Your task to perform on an android device: Open Wikipedia Image 0: 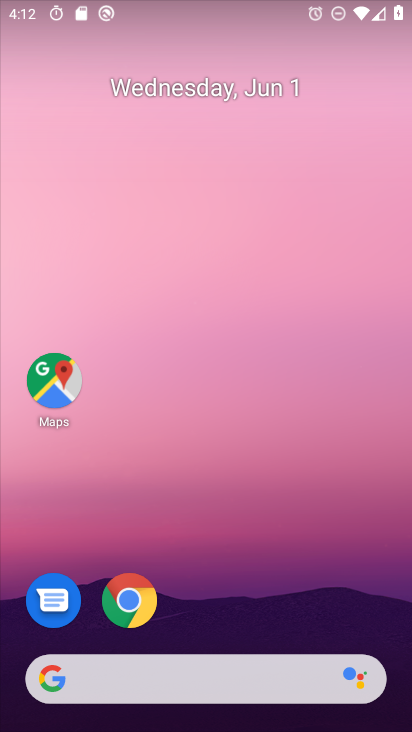
Step 0: click (121, 598)
Your task to perform on an android device: Open Wikipedia Image 1: 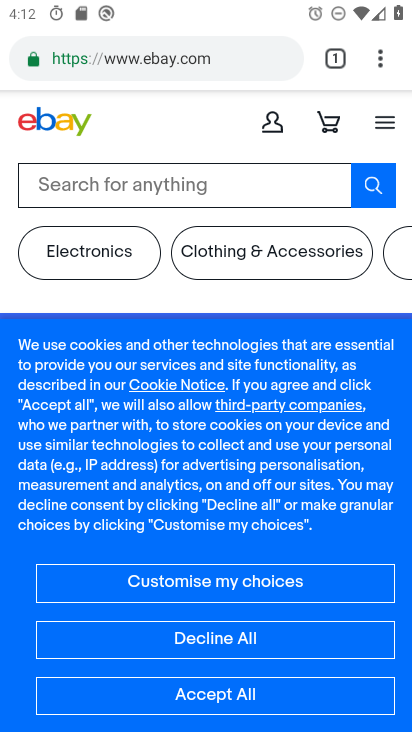
Step 1: press back button
Your task to perform on an android device: Open Wikipedia Image 2: 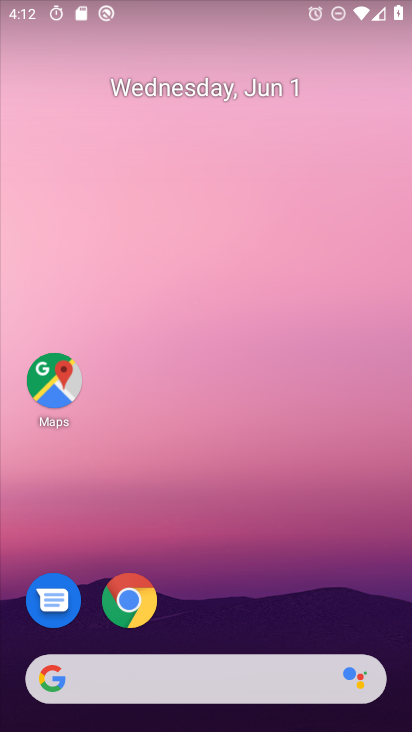
Step 2: click (112, 607)
Your task to perform on an android device: Open Wikipedia Image 3: 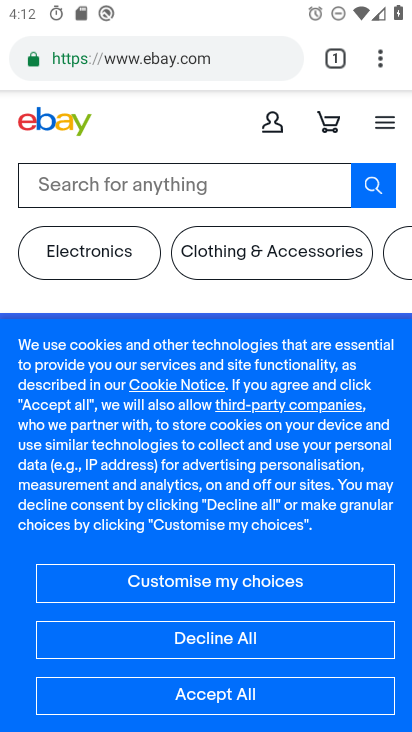
Step 3: click (138, 63)
Your task to perform on an android device: Open Wikipedia Image 4: 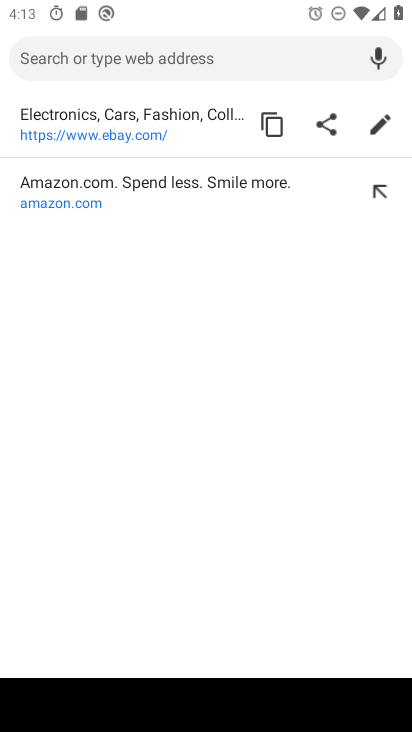
Step 4: type "www.wikipedia.com"
Your task to perform on an android device: Open Wikipedia Image 5: 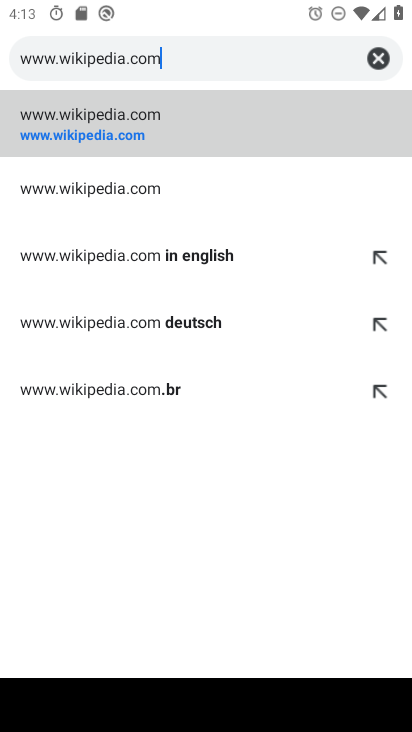
Step 5: click (105, 126)
Your task to perform on an android device: Open Wikipedia Image 6: 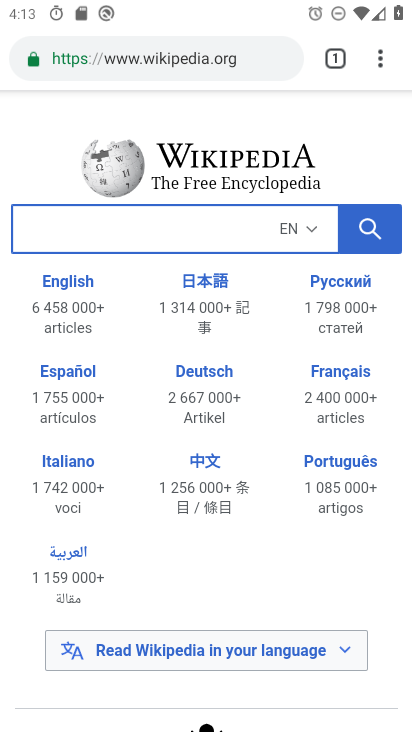
Step 6: task complete